Your task to perform on an android device: Open Wikipedia Image 0: 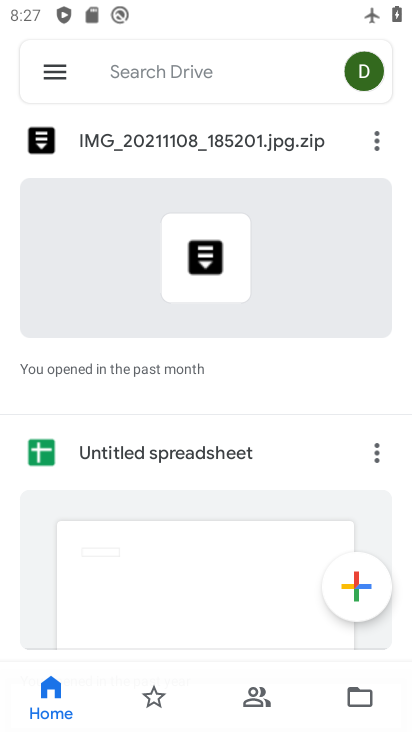
Step 0: press back button
Your task to perform on an android device: Open Wikipedia Image 1: 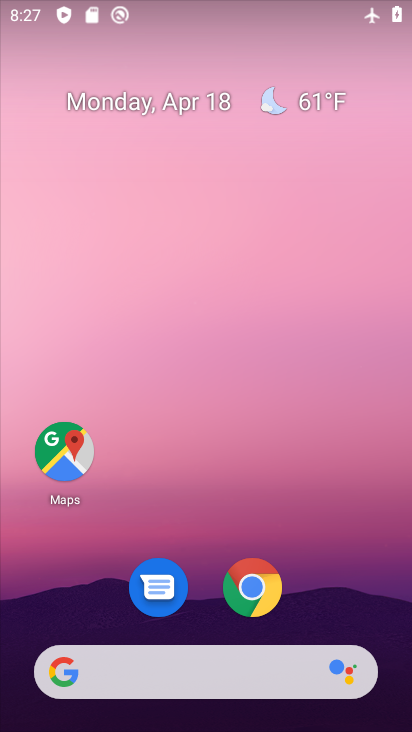
Step 1: click (248, 588)
Your task to perform on an android device: Open Wikipedia Image 2: 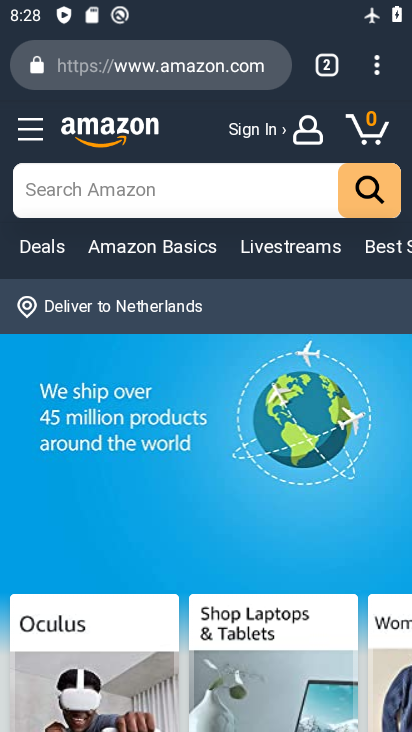
Step 2: drag from (191, 134) to (176, 586)
Your task to perform on an android device: Open Wikipedia Image 3: 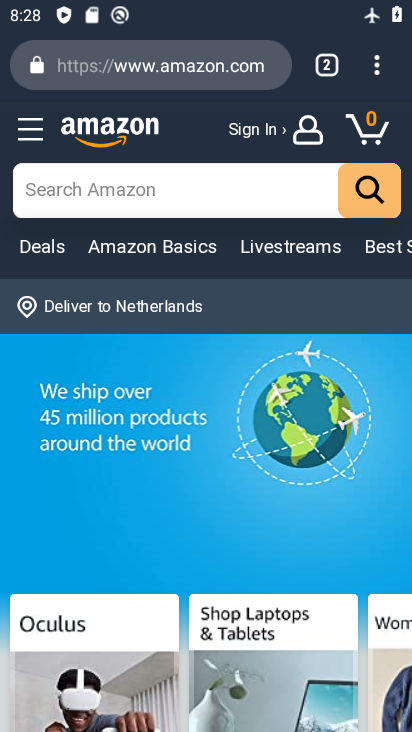
Step 3: click (375, 69)
Your task to perform on an android device: Open Wikipedia Image 4: 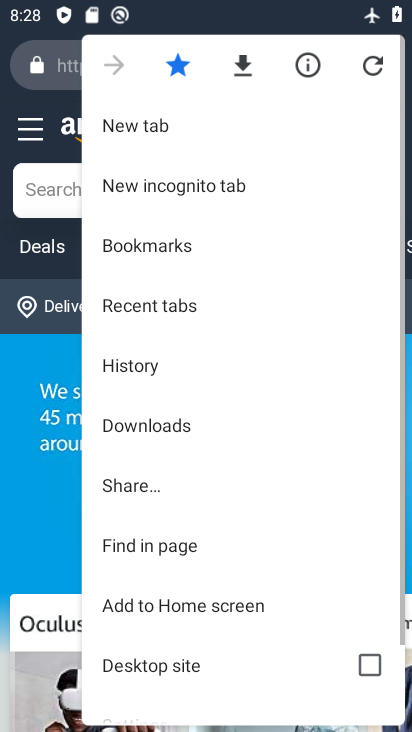
Step 4: click (133, 128)
Your task to perform on an android device: Open Wikipedia Image 5: 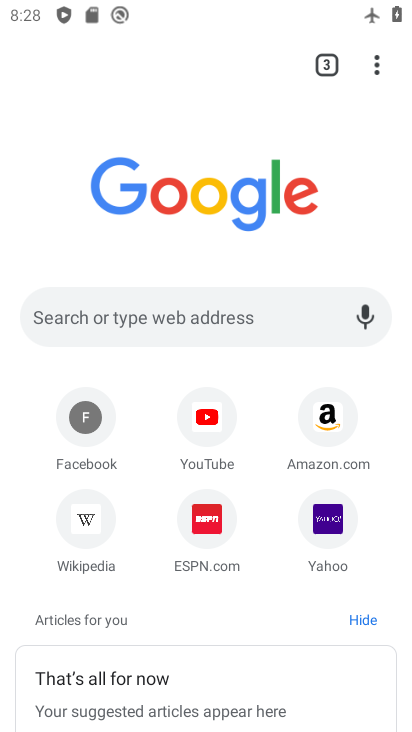
Step 5: click (85, 522)
Your task to perform on an android device: Open Wikipedia Image 6: 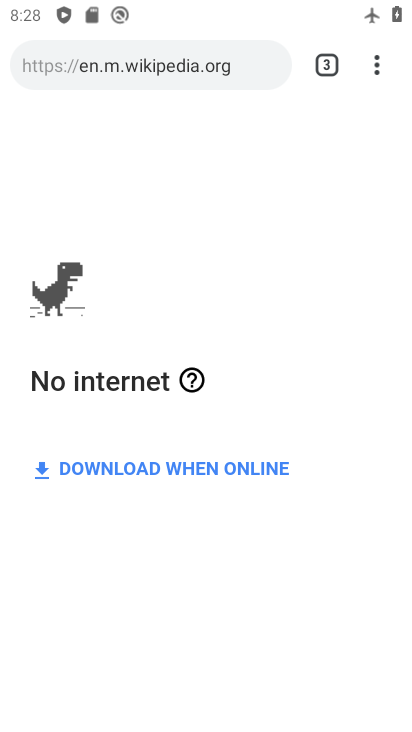
Step 6: task complete